Your task to perform on an android device: Open the calendar app, open the side menu, and click the "Day" option Image 0: 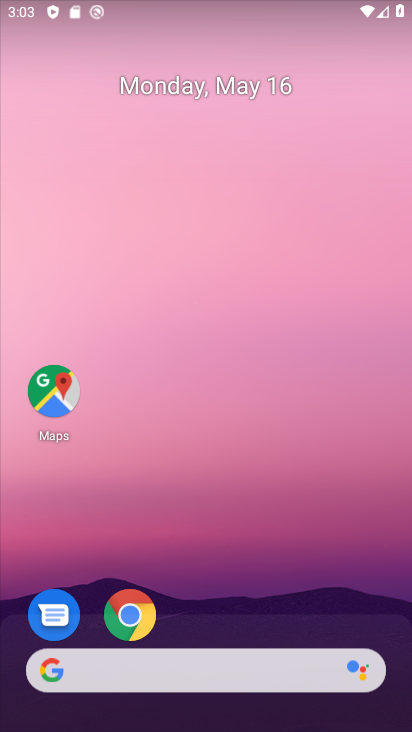
Step 0: drag from (279, 530) to (265, 63)
Your task to perform on an android device: Open the calendar app, open the side menu, and click the "Day" option Image 1: 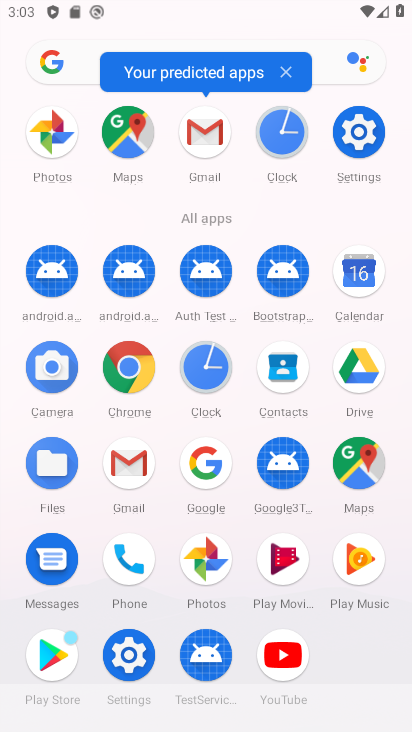
Step 1: click (360, 273)
Your task to perform on an android device: Open the calendar app, open the side menu, and click the "Day" option Image 2: 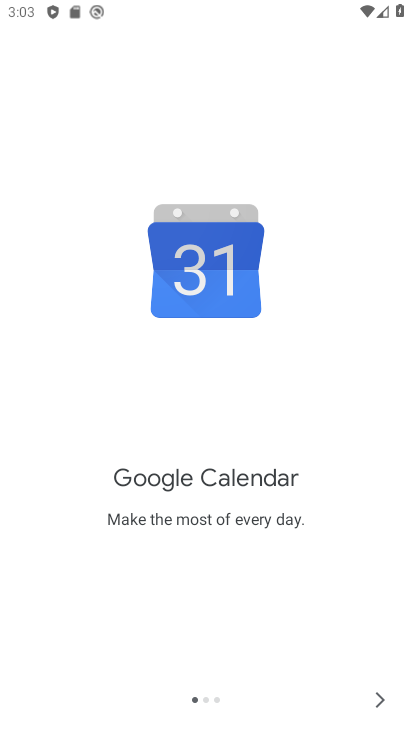
Step 2: click (378, 691)
Your task to perform on an android device: Open the calendar app, open the side menu, and click the "Day" option Image 3: 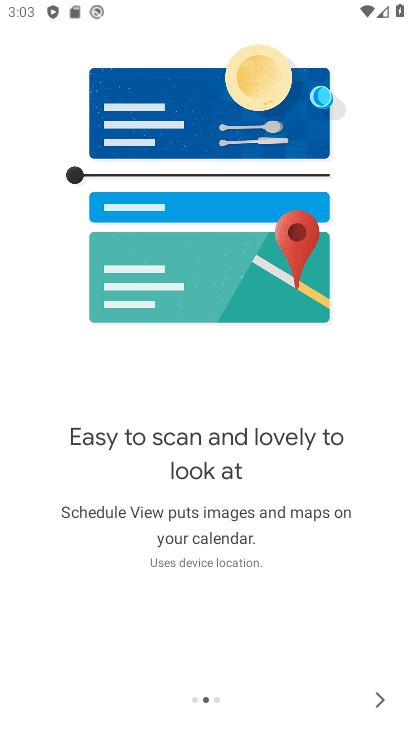
Step 3: click (376, 694)
Your task to perform on an android device: Open the calendar app, open the side menu, and click the "Day" option Image 4: 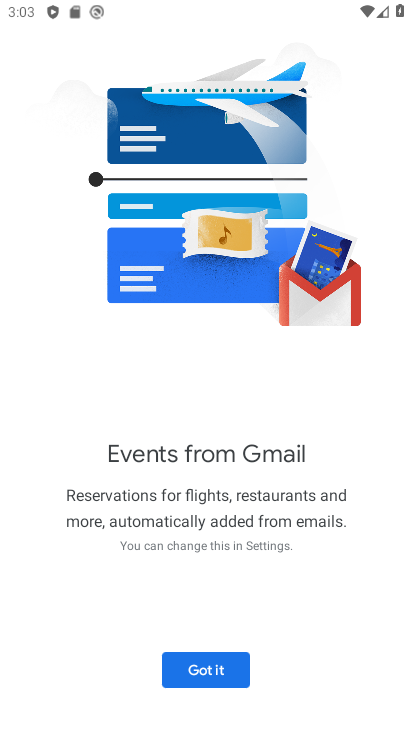
Step 4: click (241, 665)
Your task to perform on an android device: Open the calendar app, open the side menu, and click the "Day" option Image 5: 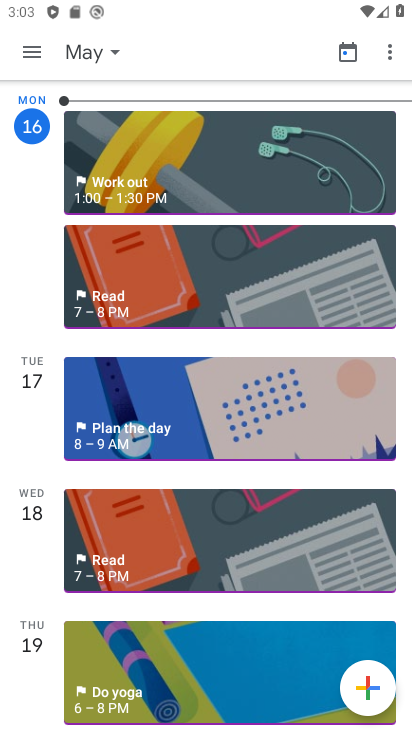
Step 5: click (33, 41)
Your task to perform on an android device: Open the calendar app, open the side menu, and click the "Day" option Image 6: 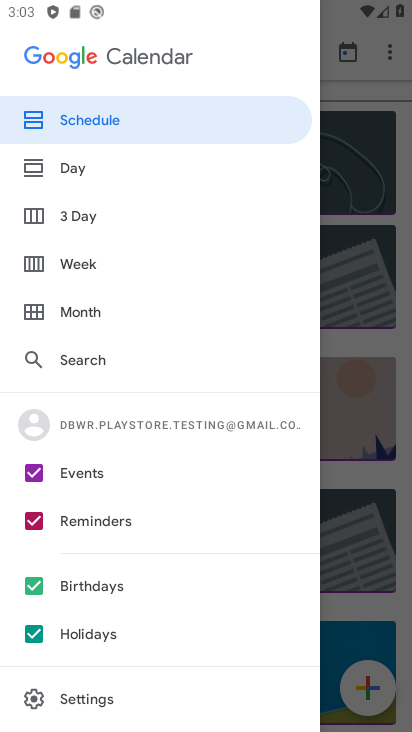
Step 6: click (46, 162)
Your task to perform on an android device: Open the calendar app, open the side menu, and click the "Day" option Image 7: 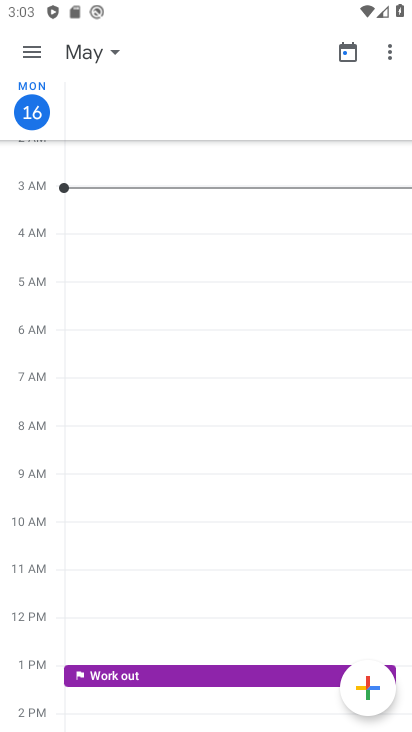
Step 7: task complete